Your task to perform on an android device: Look up the best rated video games on bestbuy.com Image 0: 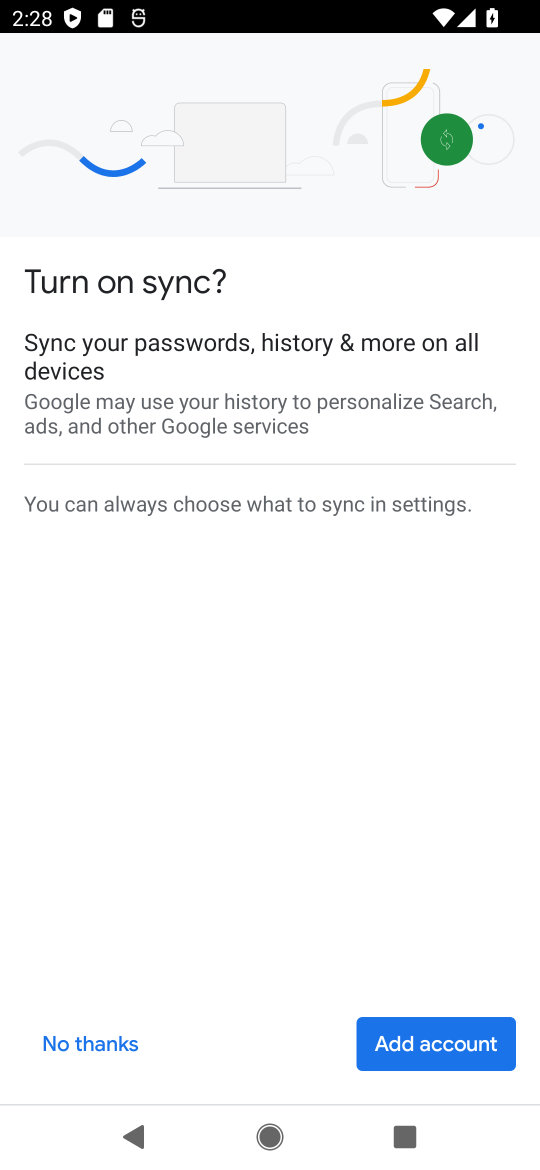
Step 0: click (82, 1053)
Your task to perform on an android device: Look up the best rated video games on bestbuy.com Image 1: 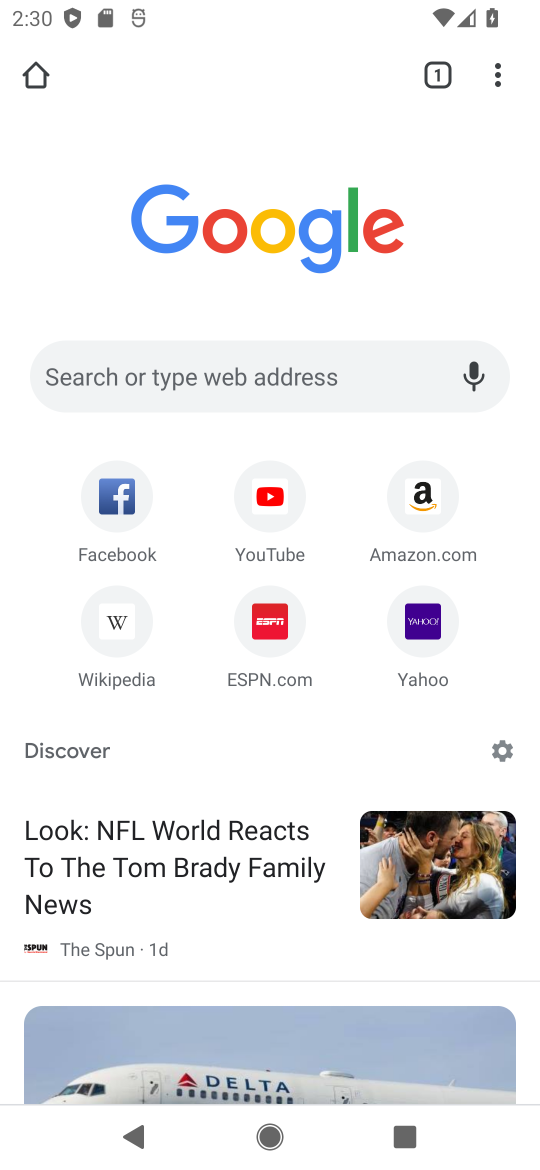
Step 1: click (301, 366)
Your task to perform on an android device: Look up the best rated video games on bestbuy.com Image 2: 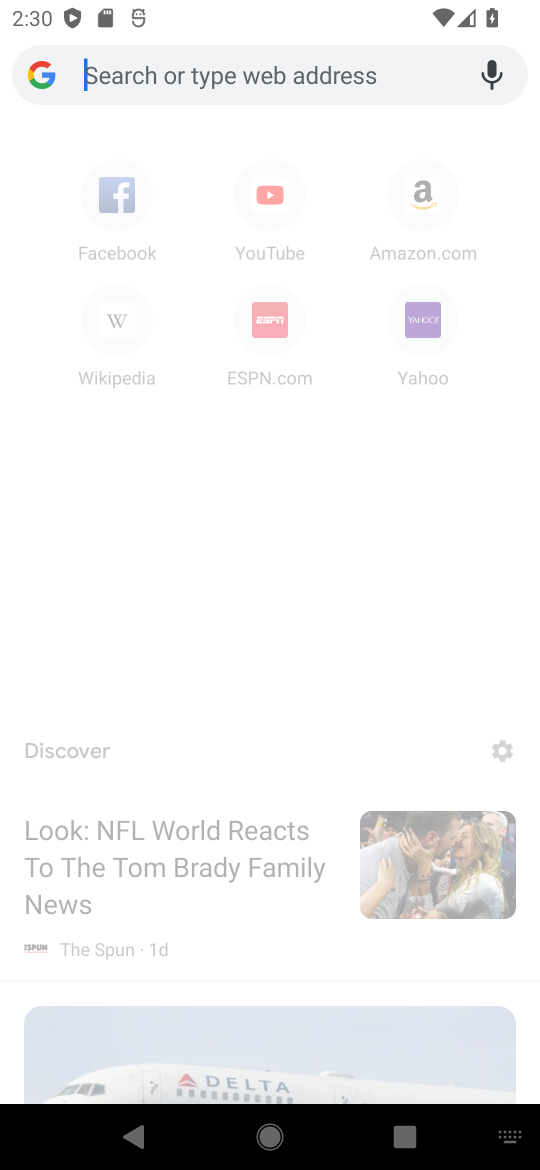
Step 2: type " bestbuy.com"
Your task to perform on an android device: Look up the best rated video games on bestbuy.com Image 3: 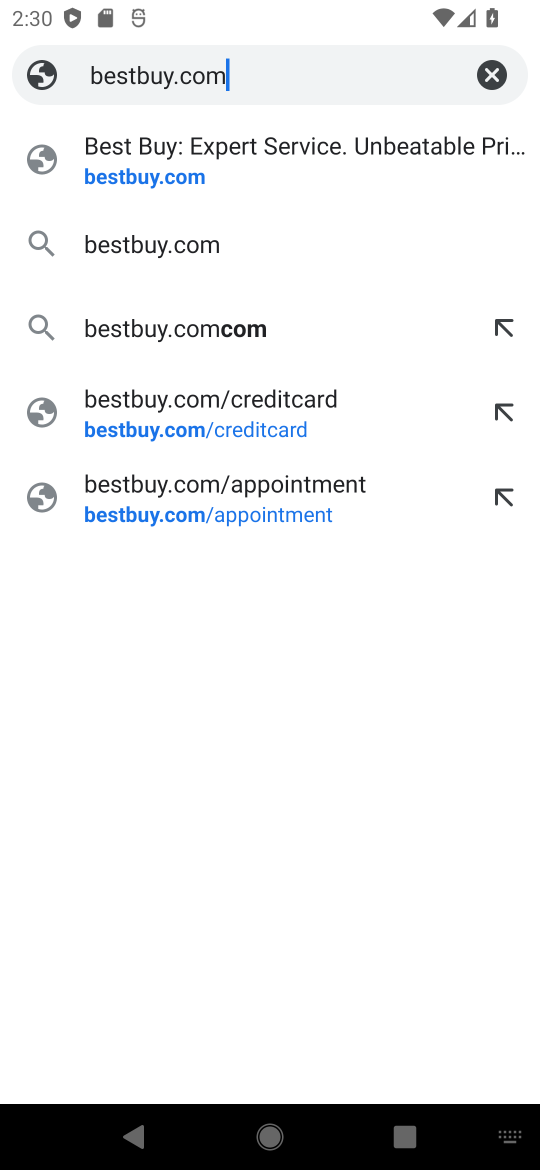
Step 3: click (158, 180)
Your task to perform on an android device: Look up the best rated video games on bestbuy.com Image 4: 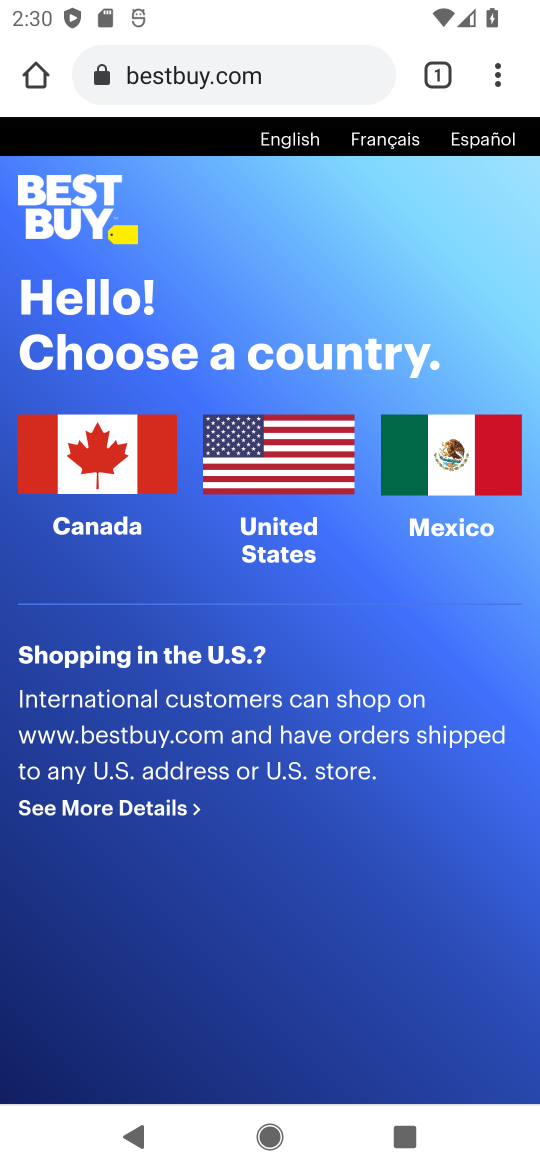
Step 4: task complete